Your task to perform on an android device: open a new tab in the chrome app Image 0: 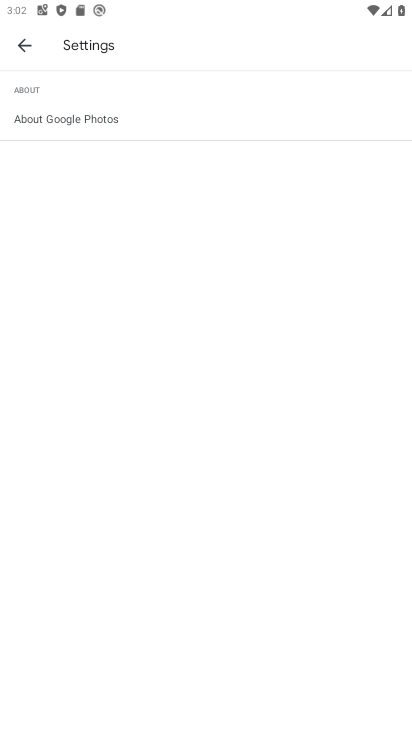
Step 0: press back button
Your task to perform on an android device: open a new tab in the chrome app Image 1: 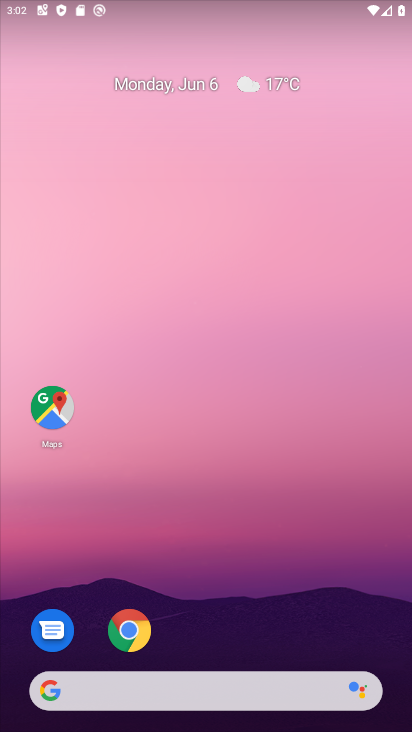
Step 1: click (122, 615)
Your task to perform on an android device: open a new tab in the chrome app Image 2: 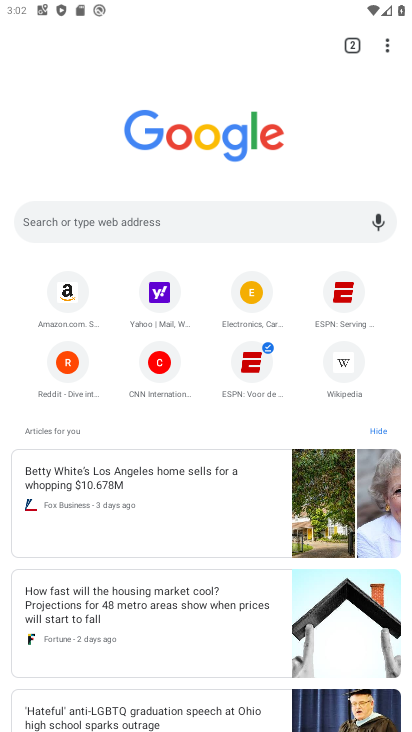
Step 2: task complete